Your task to perform on an android device: toggle data saver in the chrome app Image 0: 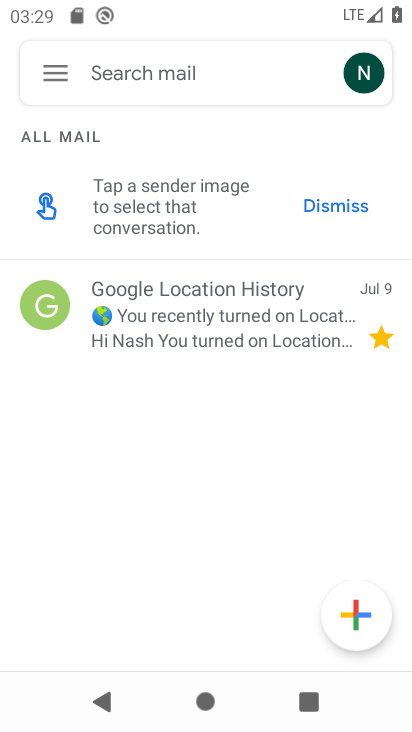
Step 0: press home button
Your task to perform on an android device: toggle data saver in the chrome app Image 1: 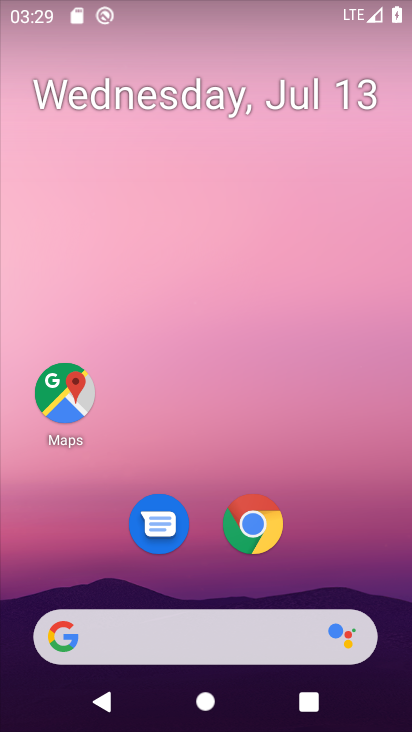
Step 1: click (265, 527)
Your task to perform on an android device: toggle data saver in the chrome app Image 2: 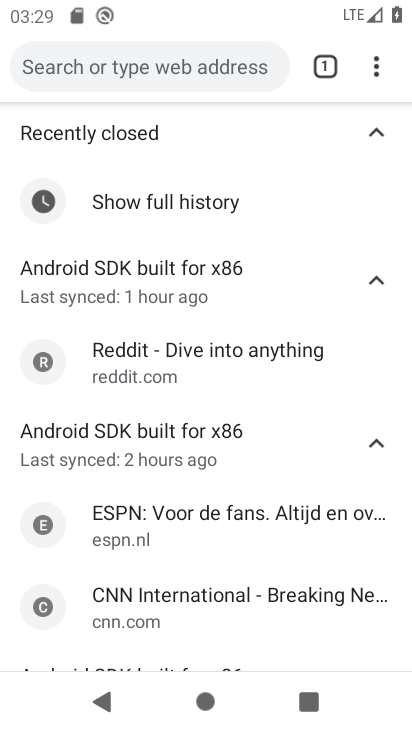
Step 2: click (373, 66)
Your task to perform on an android device: toggle data saver in the chrome app Image 3: 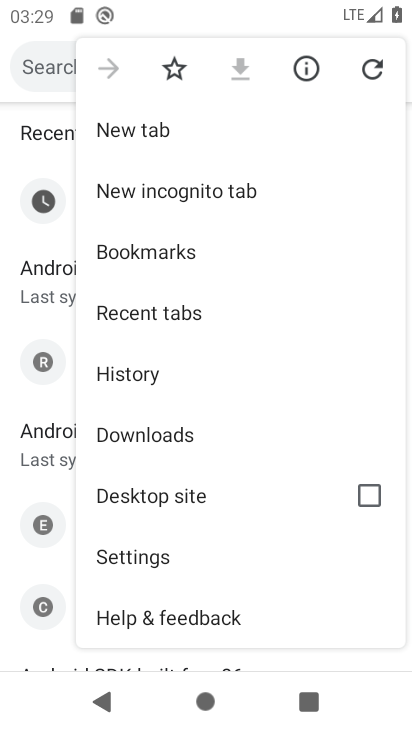
Step 3: click (160, 557)
Your task to perform on an android device: toggle data saver in the chrome app Image 4: 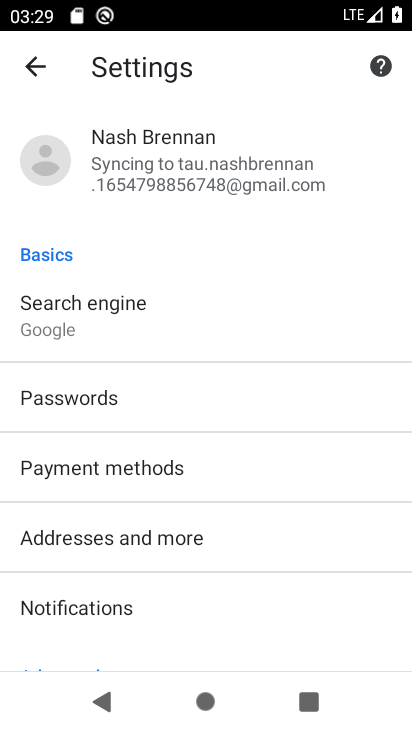
Step 4: drag from (233, 562) to (226, 334)
Your task to perform on an android device: toggle data saver in the chrome app Image 5: 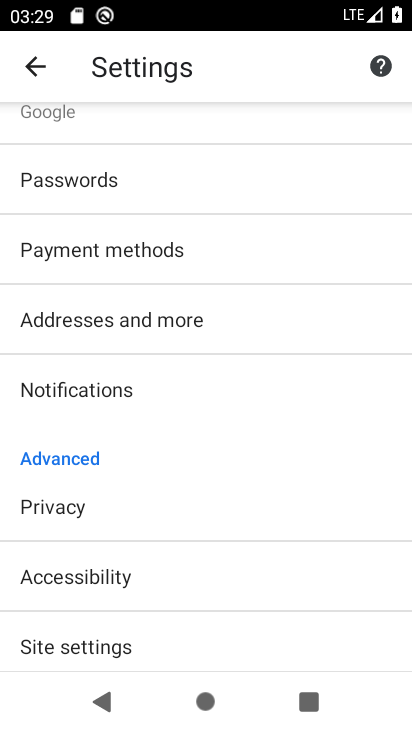
Step 5: drag from (224, 548) to (229, 347)
Your task to perform on an android device: toggle data saver in the chrome app Image 6: 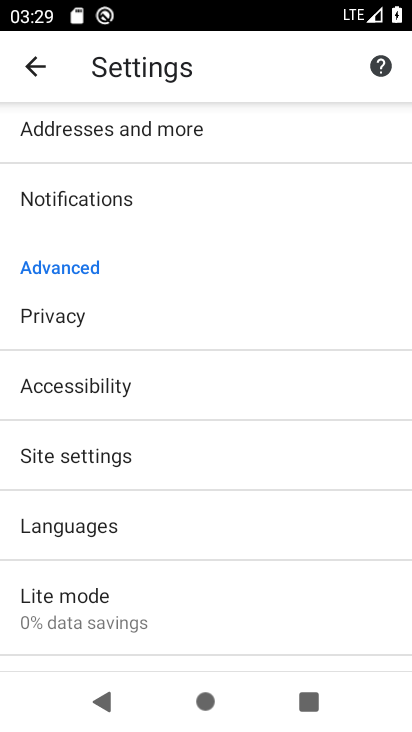
Step 6: click (81, 597)
Your task to perform on an android device: toggle data saver in the chrome app Image 7: 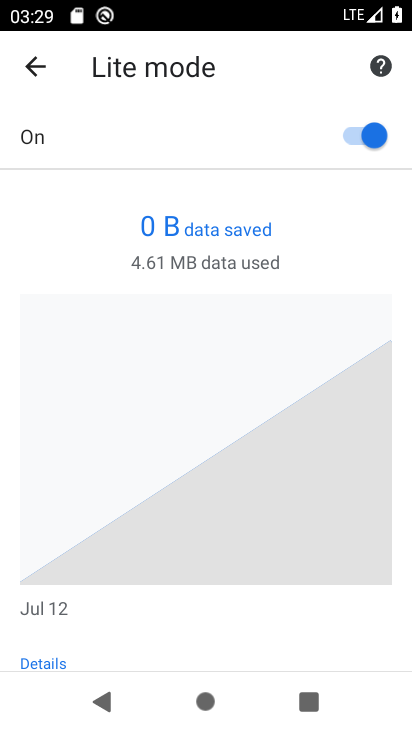
Step 7: click (369, 128)
Your task to perform on an android device: toggle data saver in the chrome app Image 8: 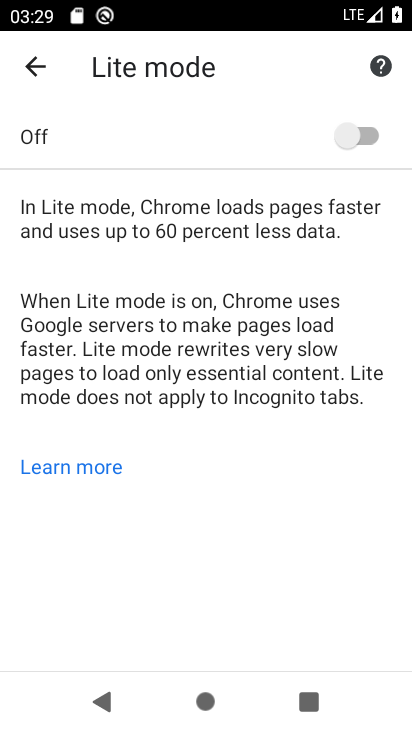
Step 8: task complete